Your task to perform on an android device: Open accessibility settings Image 0: 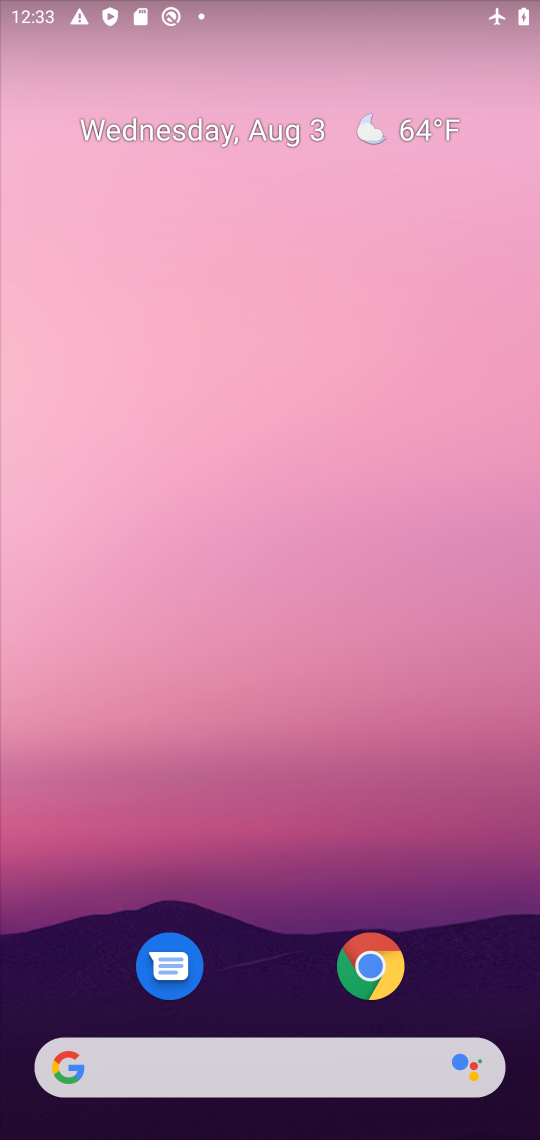
Step 0: drag from (237, 965) to (198, 251)
Your task to perform on an android device: Open accessibility settings Image 1: 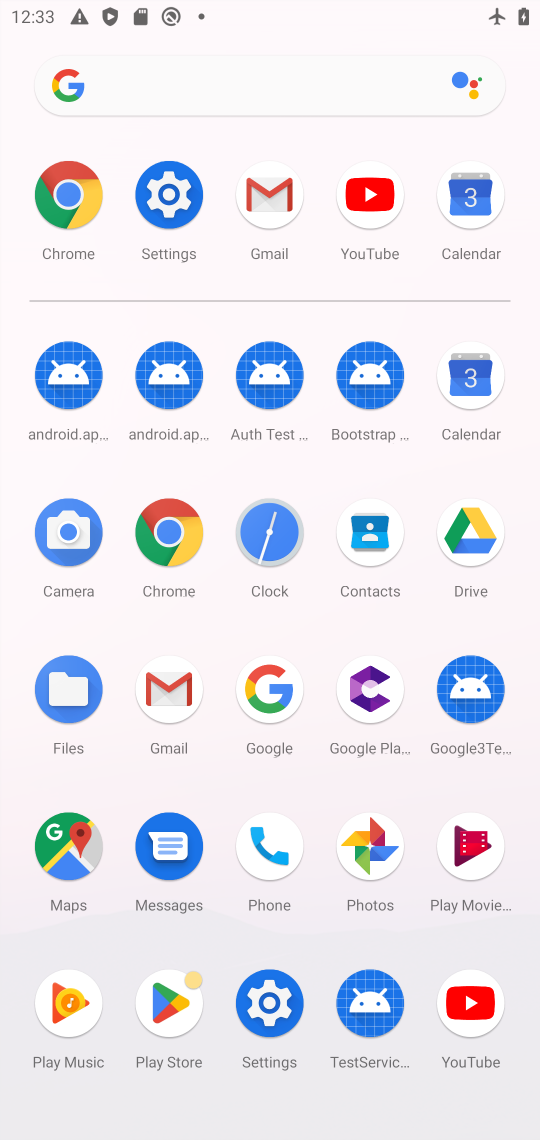
Step 1: click (161, 236)
Your task to perform on an android device: Open accessibility settings Image 2: 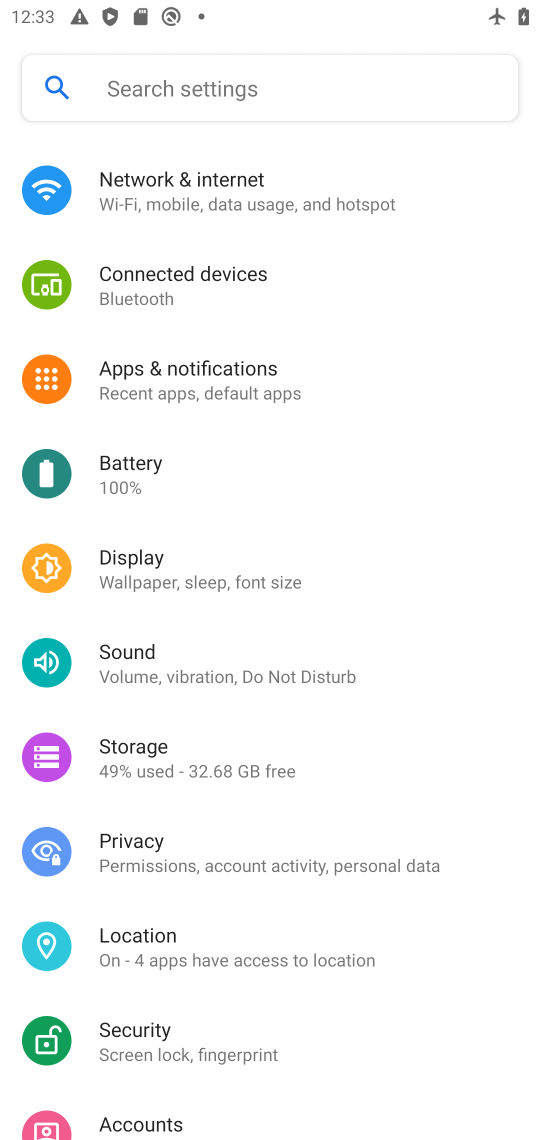
Step 2: drag from (280, 922) to (310, 496)
Your task to perform on an android device: Open accessibility settings Image 3: 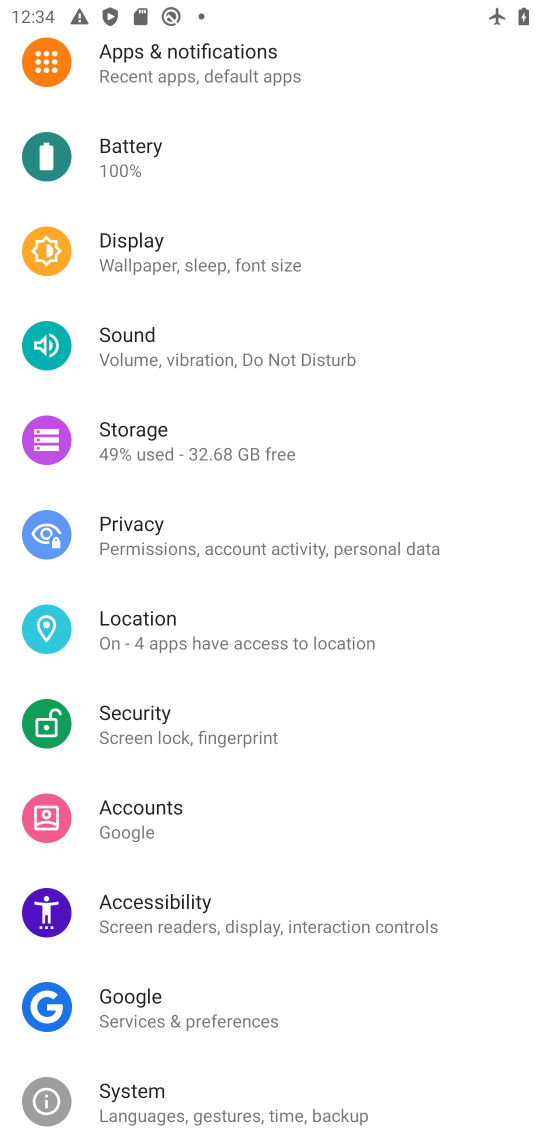
Step 3: click (223, 904)
Your task to perform on an android device: Open accessibility settings Image 4: 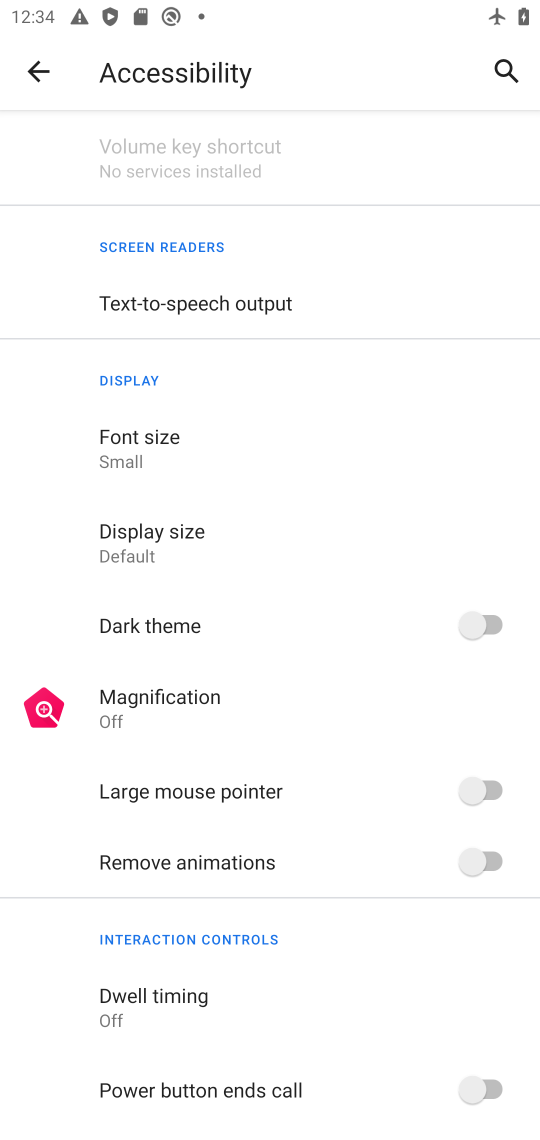
Step 4: task complete